Your task to perform on an android device: toggle javascript in the chrome app Image 0: 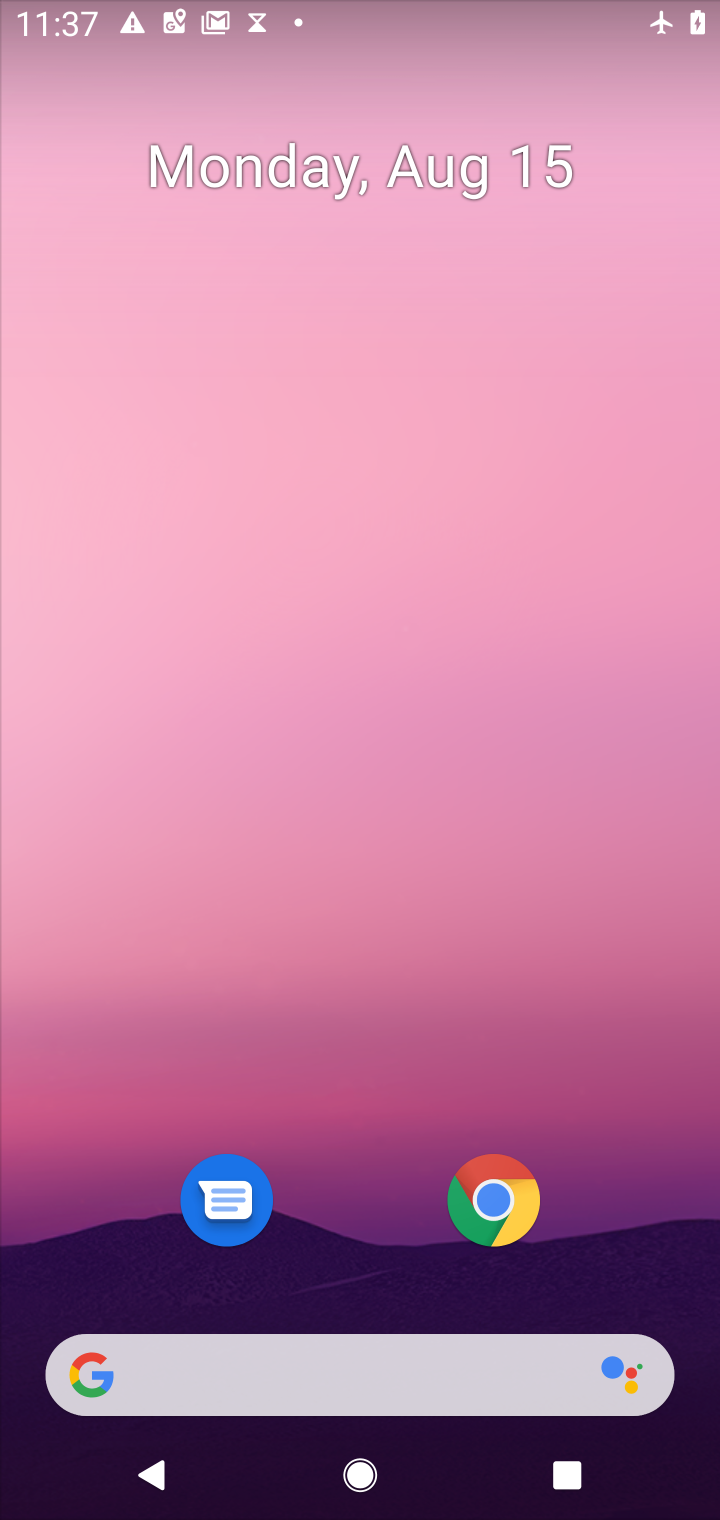
Step 0: click (467, 1167)
Your task to perform on an android device: toggle javascript in the chrome app Image 1: 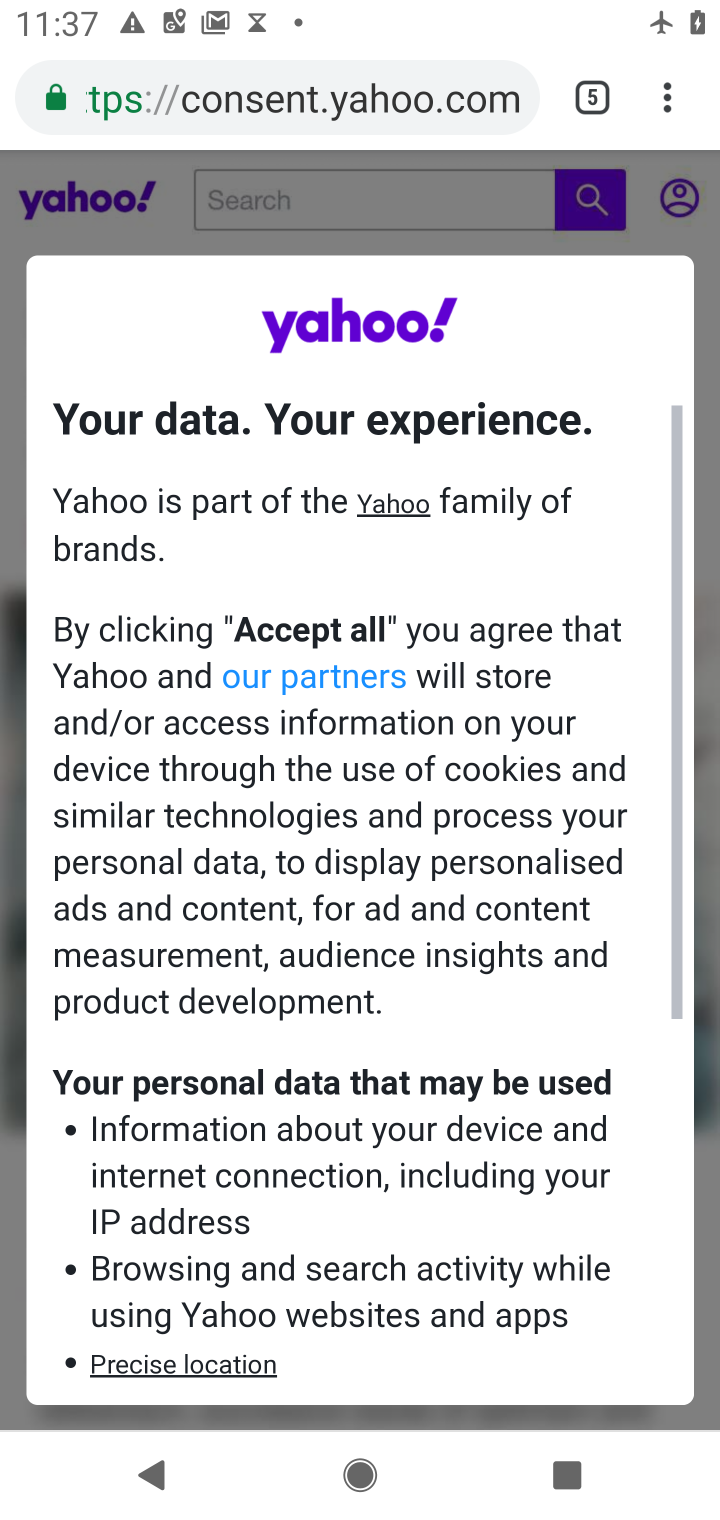
Step 1: click (655, 92)
Your task to perform on an android device: toggle javascript in the chrome app Image 2: 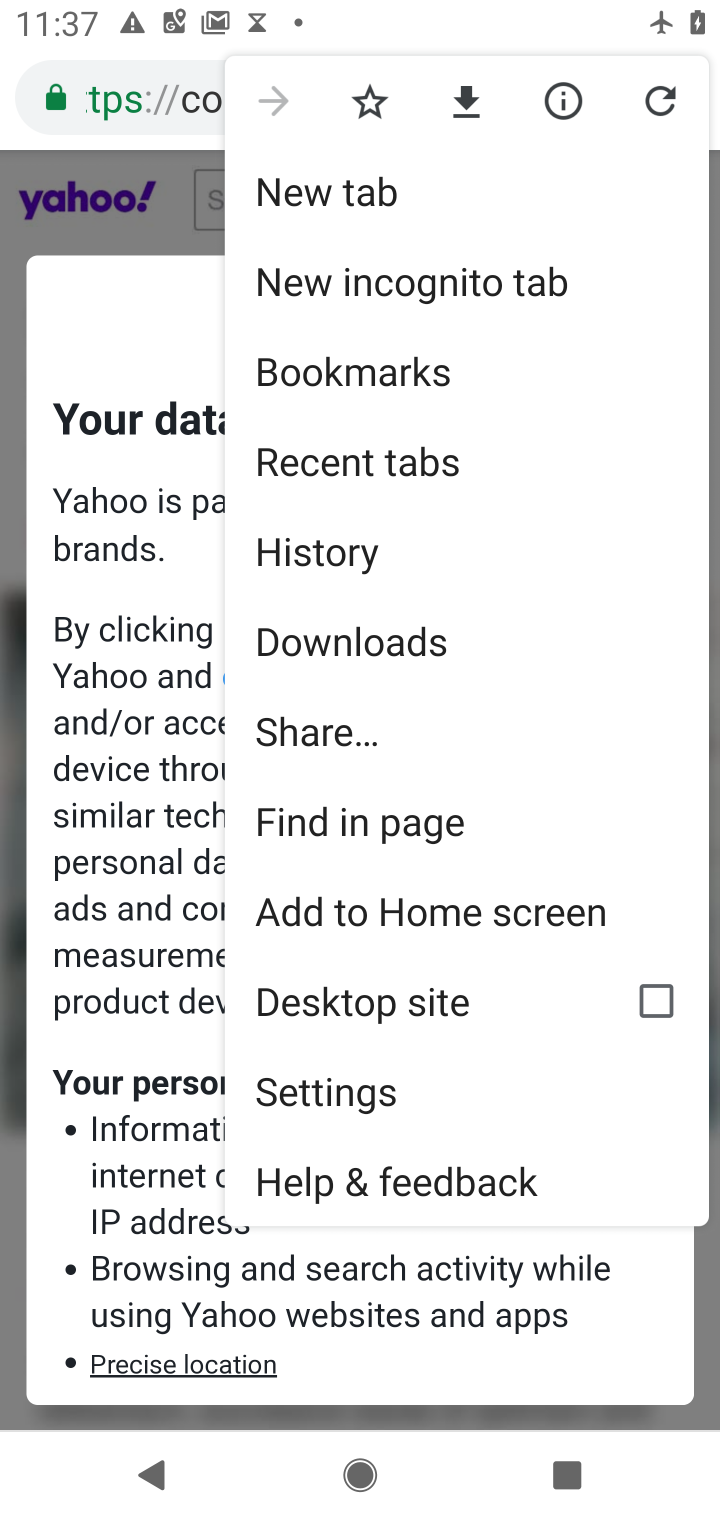
Step 2: click (318, 1080)
Your task to perform on an android device: toggle javascript in the chrome app Image 3: 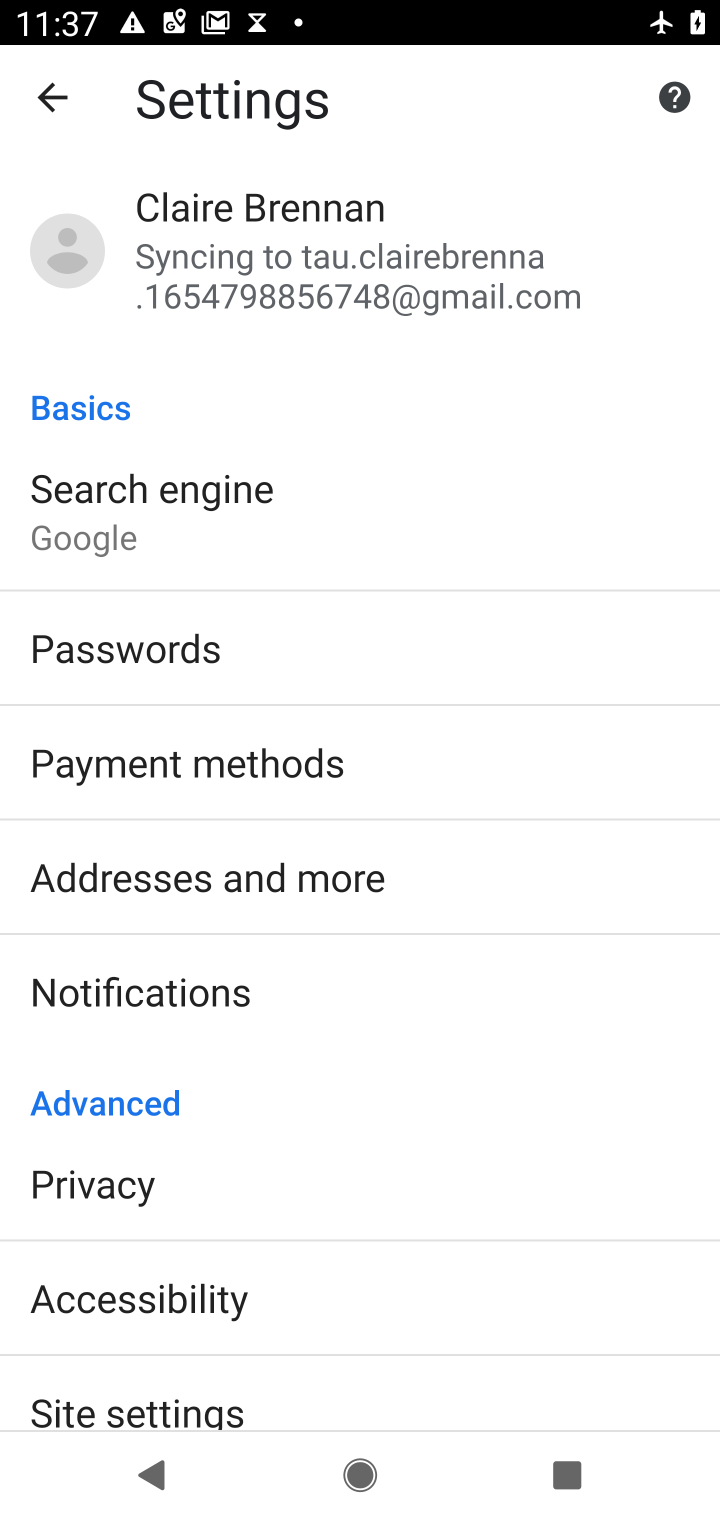
Step 3: drag from (346, 995) to (352, 539)
Your task to perform on an android device: toggle javascript in the chrome app Image 4: 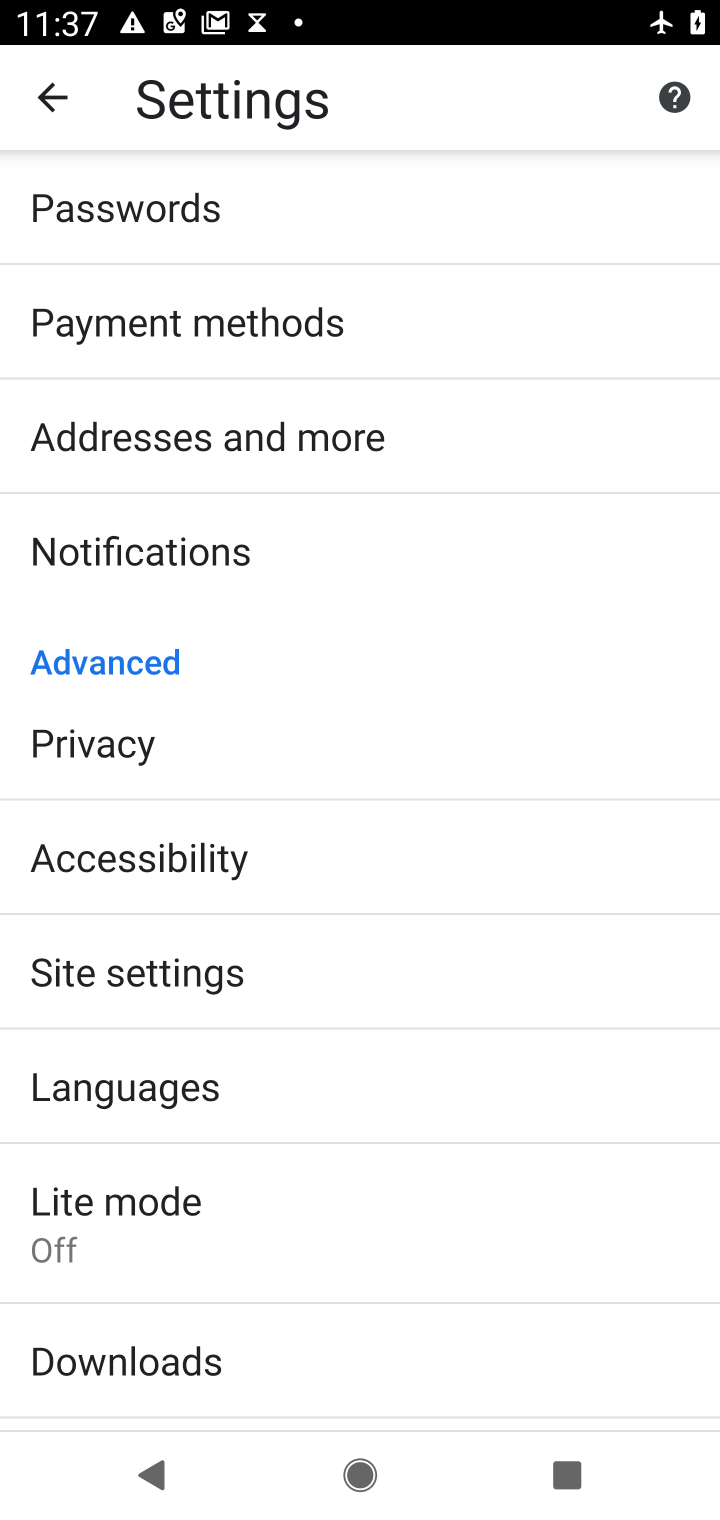
Step 4: click (275, 990)
Your task to perform on an android device: toggle javascript in the chrome app Image 5: 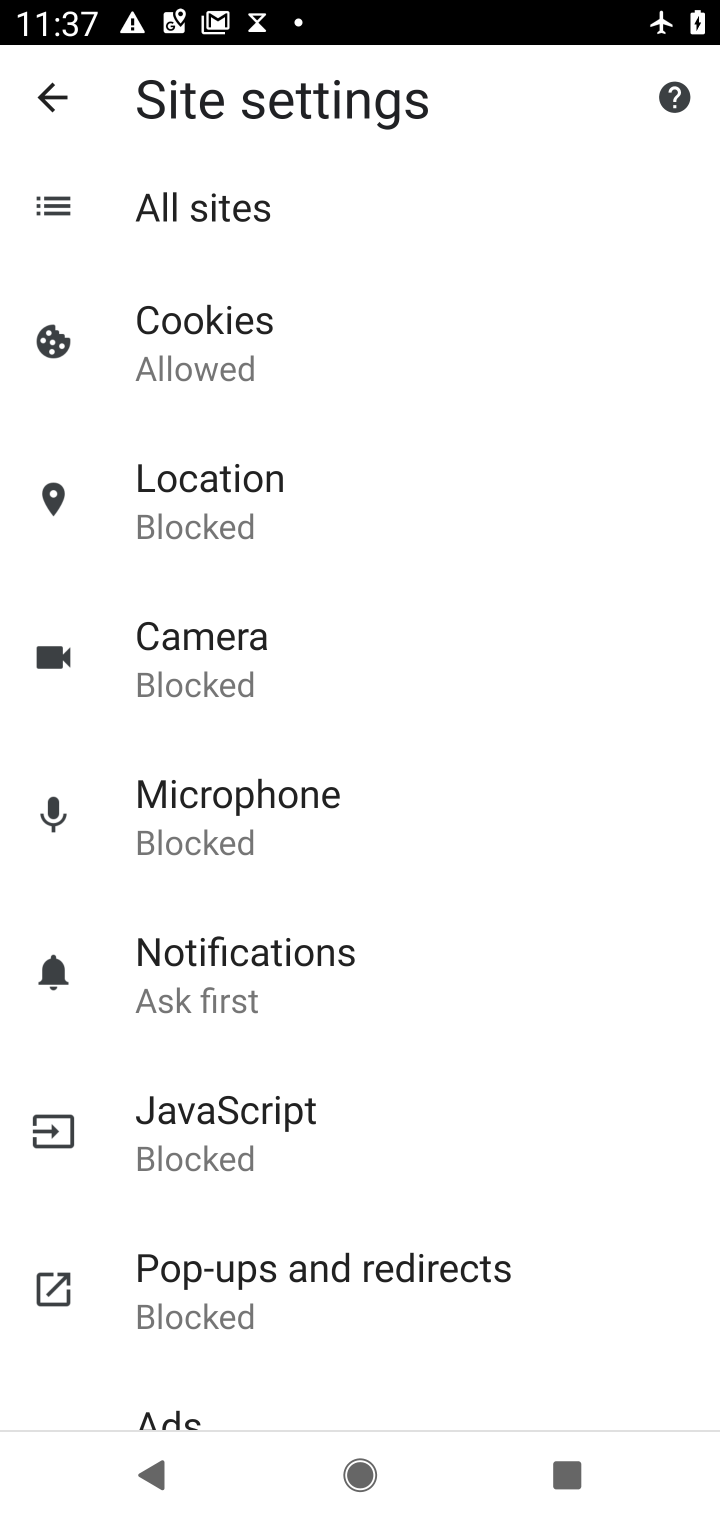
Step 5: click (349, 1091)
Your task to perform on an android device: toggle javascript in the chrome app Image 6: 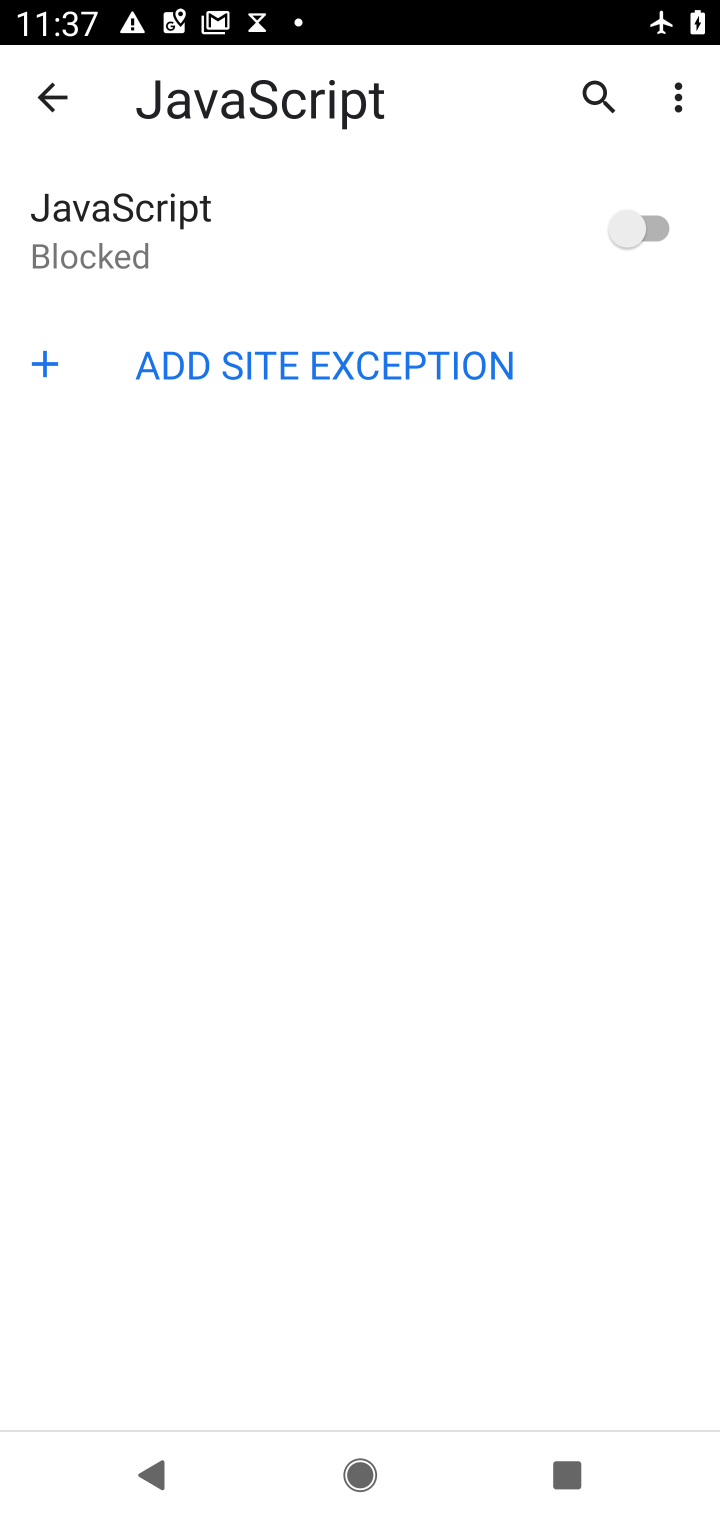
Step 6: click (638, 210)
Your task to perform on an android device: toggle javascript in the chrome app Image 7: 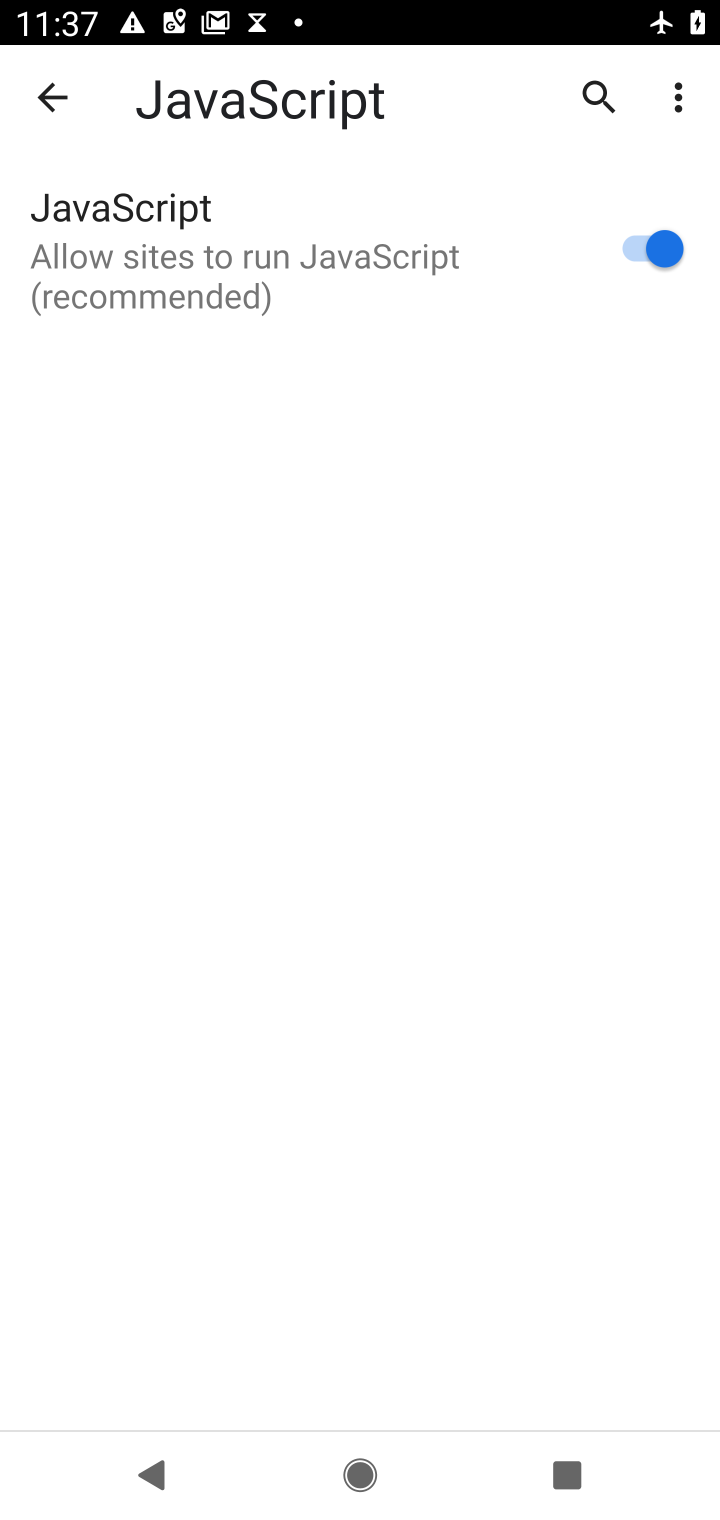
Step 7: task complete